Your task to perform on an android device: delete the emails in spam in the gmail app Image 0: 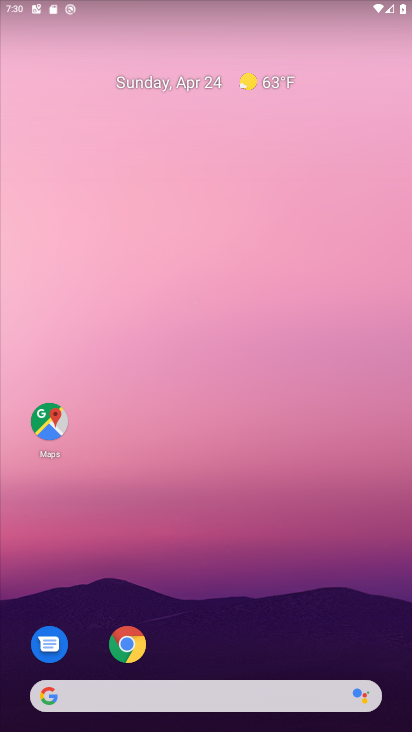
Step 0: drag from (212, 653) to (243, 3)
Your task to perform on an android device: delete the emails in spam in the gmail app Image 1: 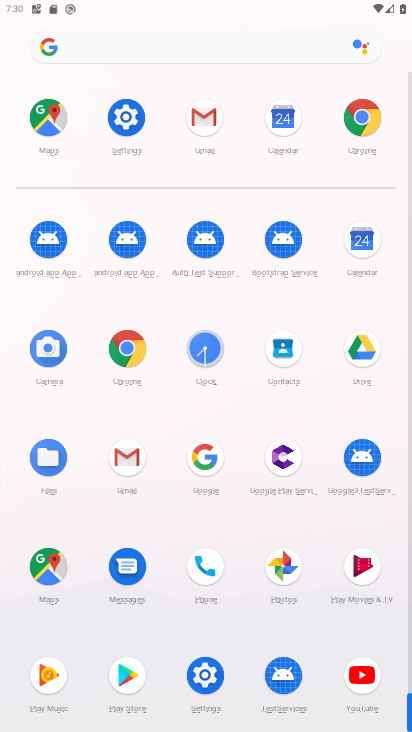
Step 1: click (126, 448)
Your task to perform on an android device: delete the emails in spam in the gmail app Image 2: 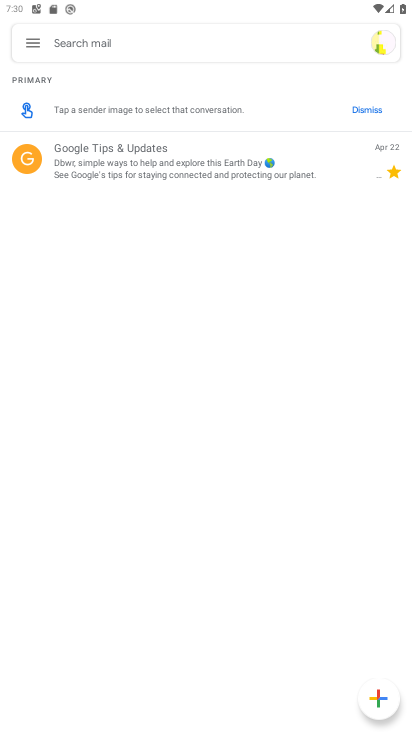
Step 2: click (29, 42)
Your task to perform on an android device: delete the emails in spam in the gmail app Image 3: 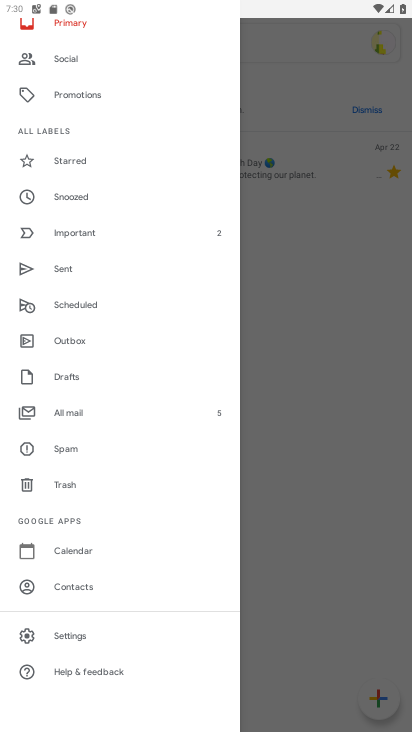
Step 3: click (83, 409)
Your task to perform on an android device: delete the emails in spam in the gmail app Image 4: 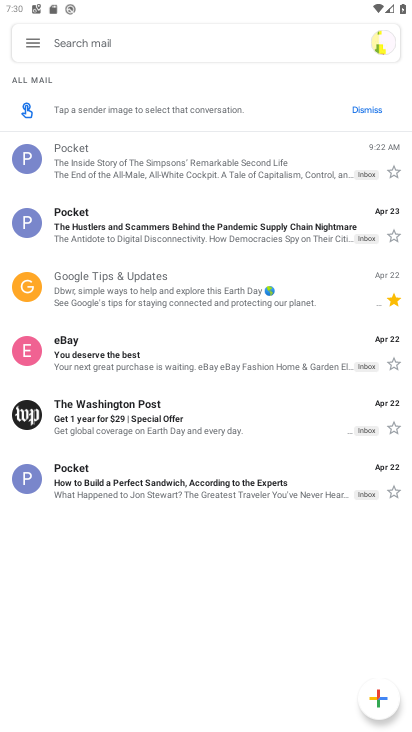
Step 4: click (125, 475)
Your task to perform on an android device: delete the emails in spam in the gmail app Image 5: 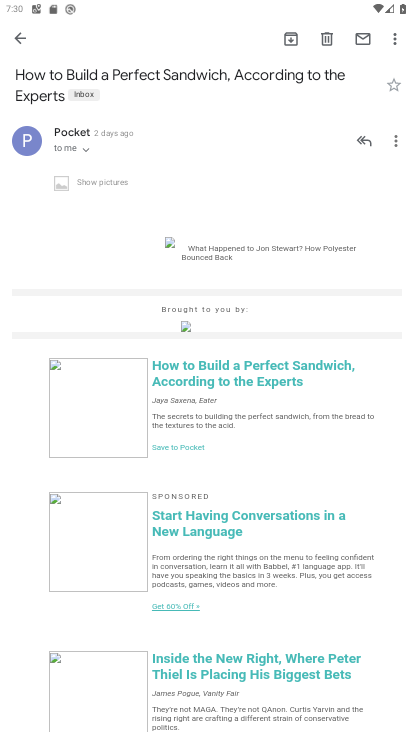
Step 5: click (17, 39)
Your task to perform on an android device: delete the emails in spam in the gmail app Image 6: 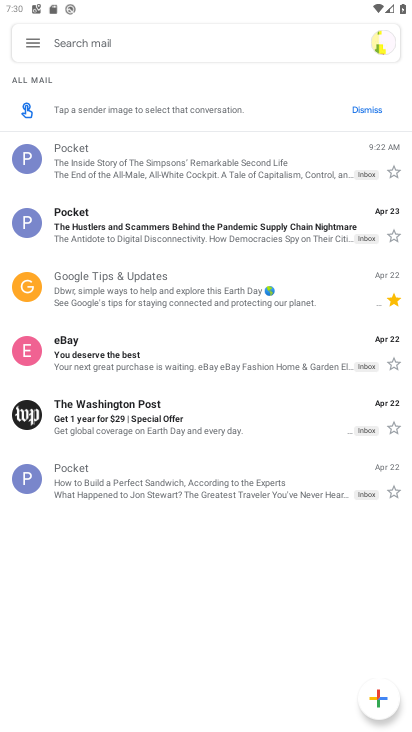
Step 6: click (24, 471)
Your task to perform on an android device: delete the emails in spam in the gmail app Image 7: 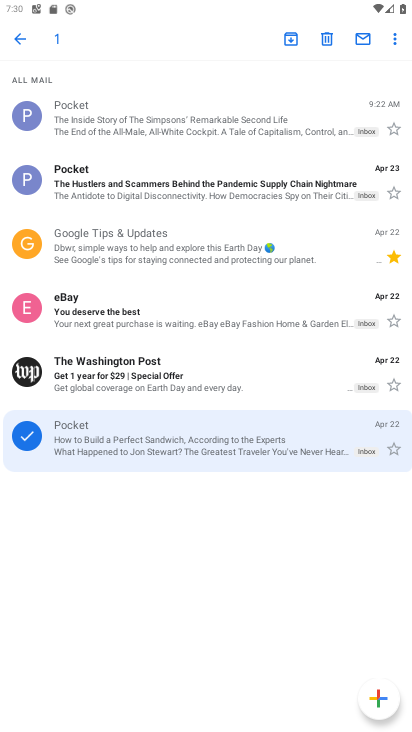
Step 7: click (321, 34)
Your task to perform on an android device: delete the emails in spam in the gmail app Image 8: 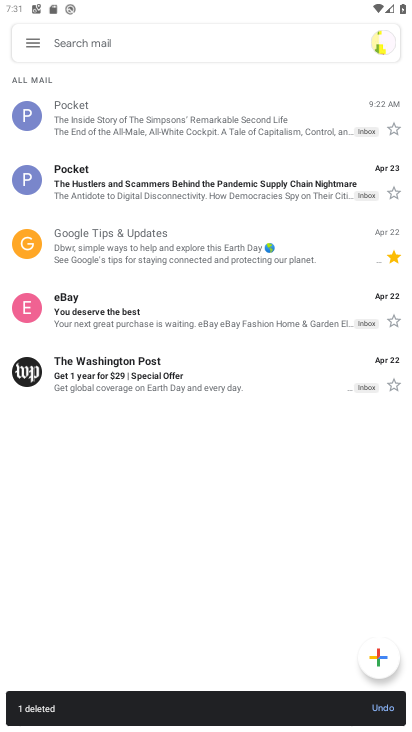
Step 8: task complete